Your task to perform on an android device: Open Amazon Image 0: 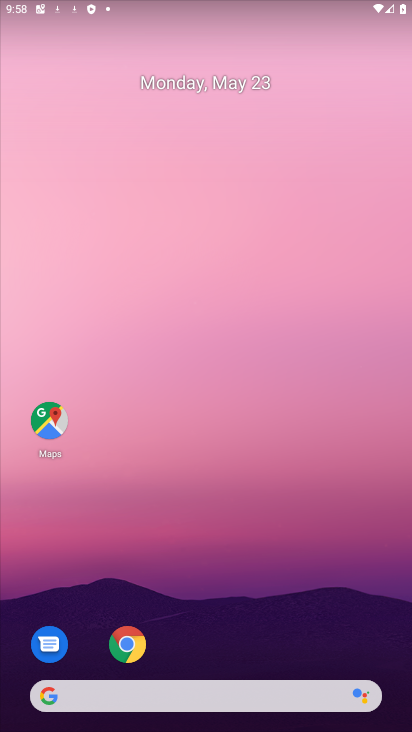
Step 0: drag from (306, 706) to (240, 183)
Your task to perform on an android device: Open Amazon Image 1: 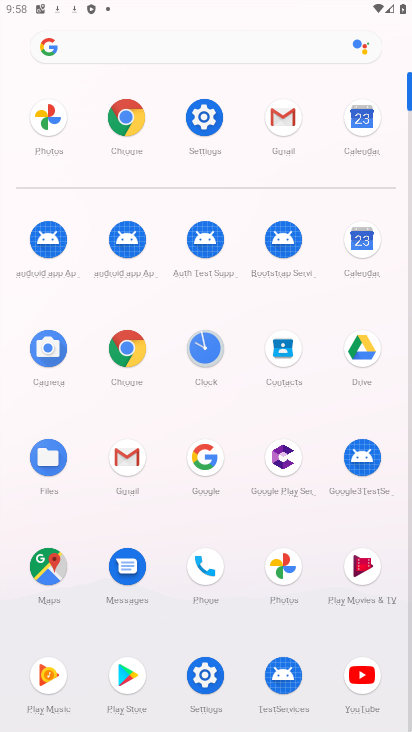
Step 1: click (62, 567)
Your task to perform on an android device: Open Amazon Image 2: 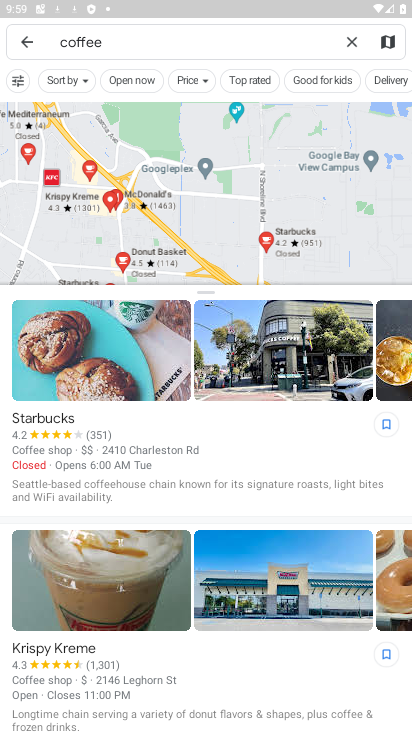
Step 2: press home button
Your task to perform on an android device: Open Amazon Image 3: 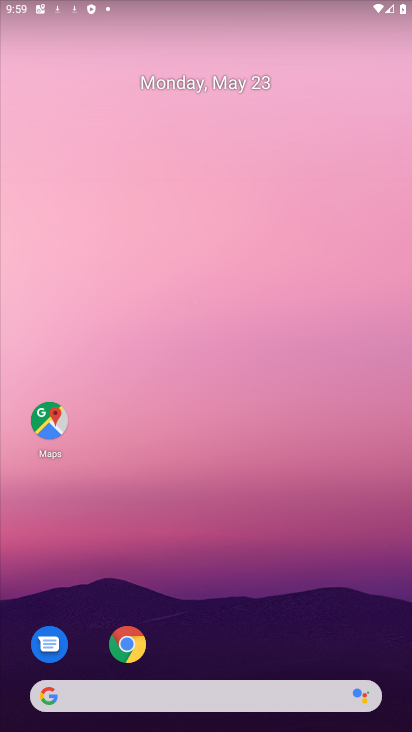
Step 3: drag from (237, 675) to (231, 276)
Your task to perform on an android device: Open Amazon Image 4: 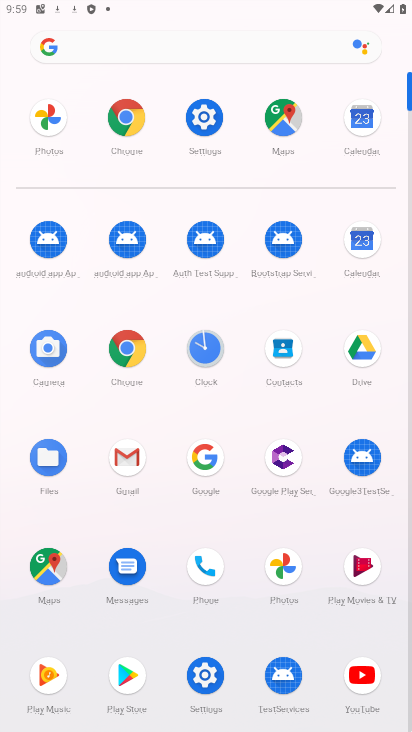
Step 4: click (127, 105)
Your task to perform on an android device: Open Amazon Image 5: 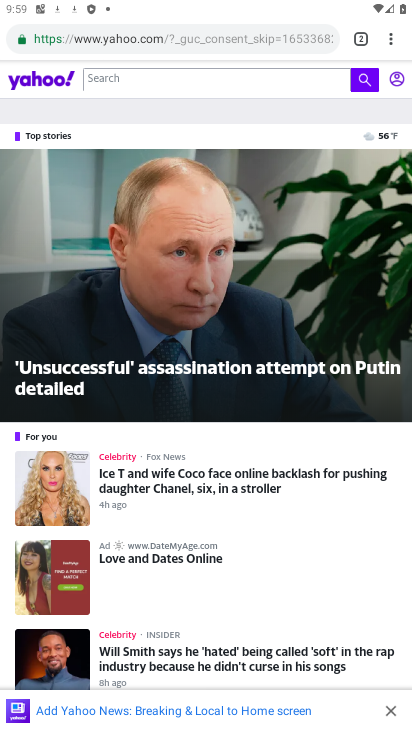
Step 5: click (361, 42)
Your task to perform on an android device: Open Amazon Image 6: 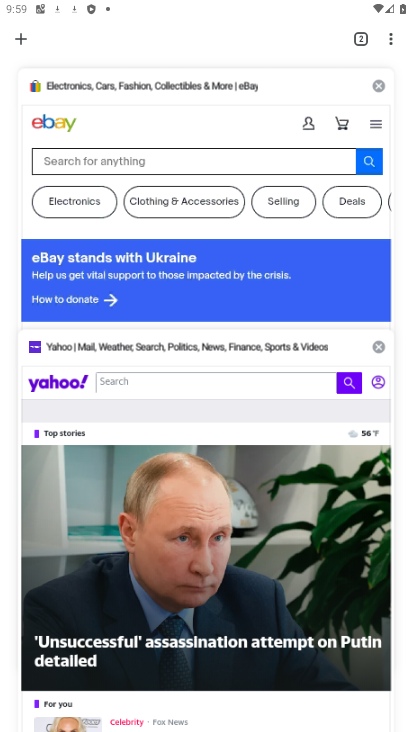
Step 6: click (21, 39)
Your task to perform on an android device: Open Amazon Image 7: 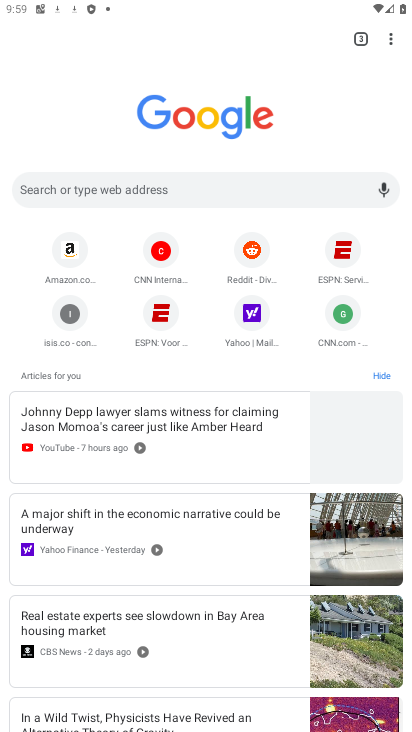
Step 7: click (59, 236)
Your task to perform on an android device: Open Amazon Image 8: 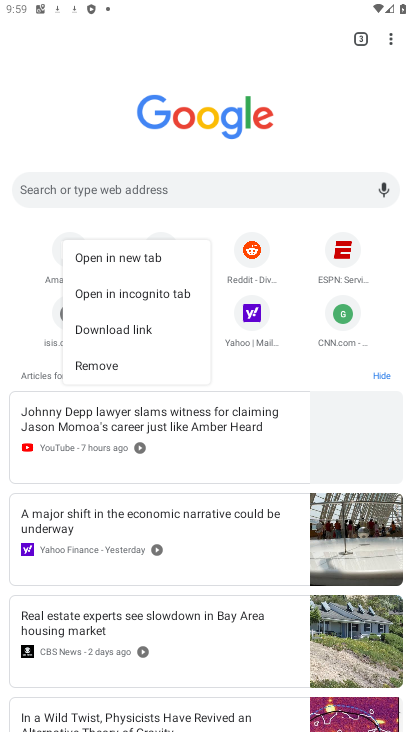
Step 8: click (44, 272)
Your task to perform on an android device: Open Amazon Image 9: 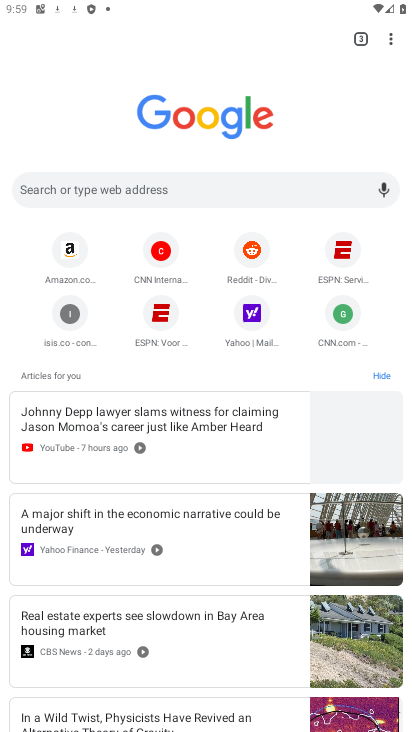
Step 9: click (56, 260)
Your task to perform on an android device: Open Amazon Image 10: 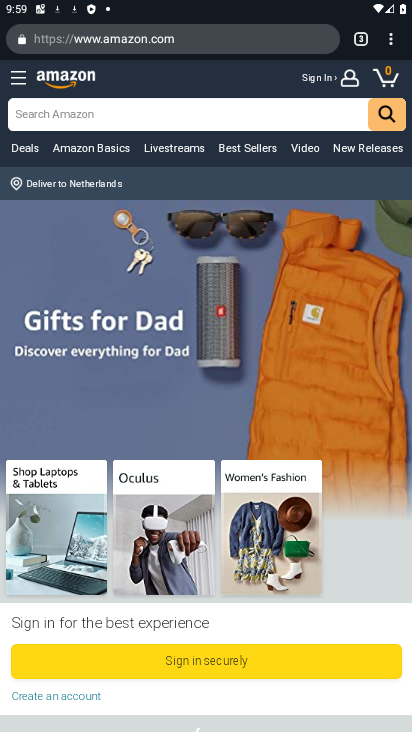
Step 10: task complete